Your task to perform on an android device: see sites visited before in the chrome app Image 0: 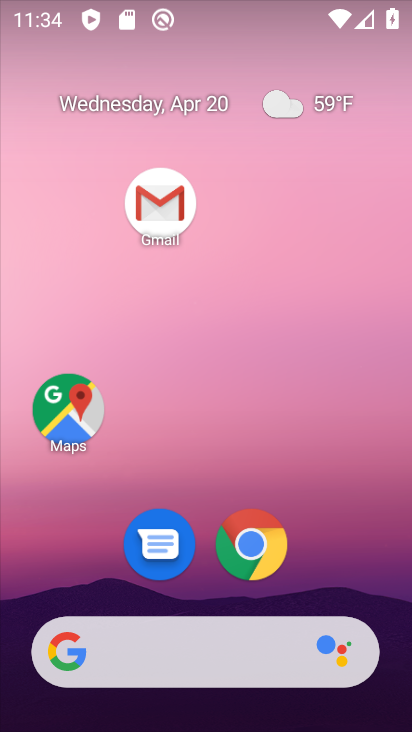
Step 0: click (257, 549)
Your task to perform on an android device: see sites visited before in the chrome app Image 1: 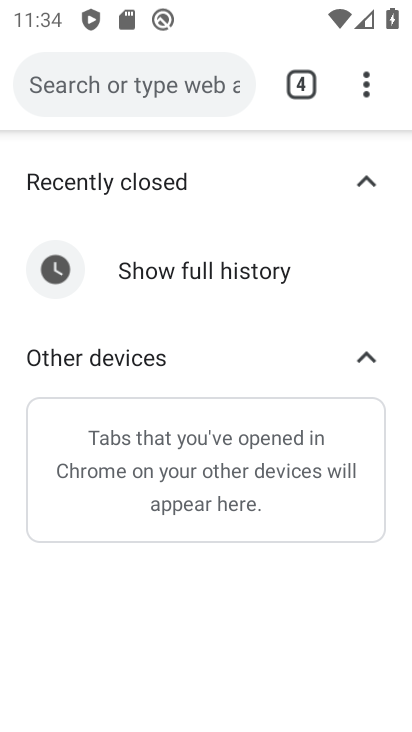
Step 1: click (365, 87)
Your task to perform on an android device: see sites visited before in the chrome app Image 2: 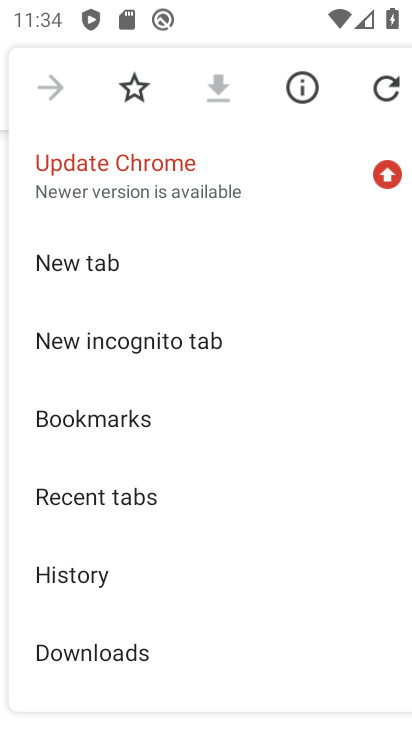
Step 2: click (175, 505)
Your task to perform on an android device: see sites visited before in the chrome app Image 3: 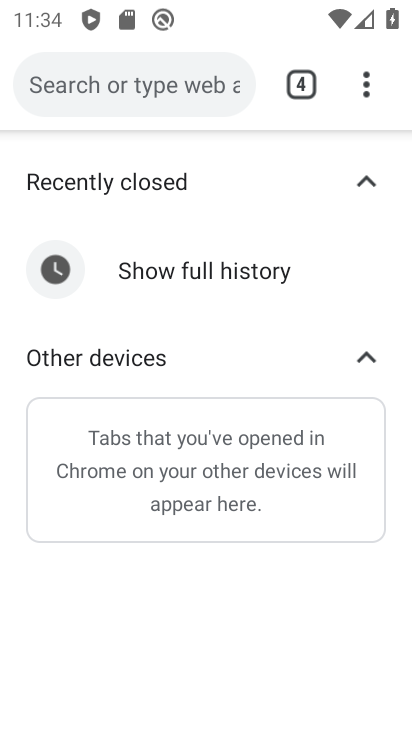
Step 3: task complete